Your task to perform on an android device: Is it going to rain today? Image 0: 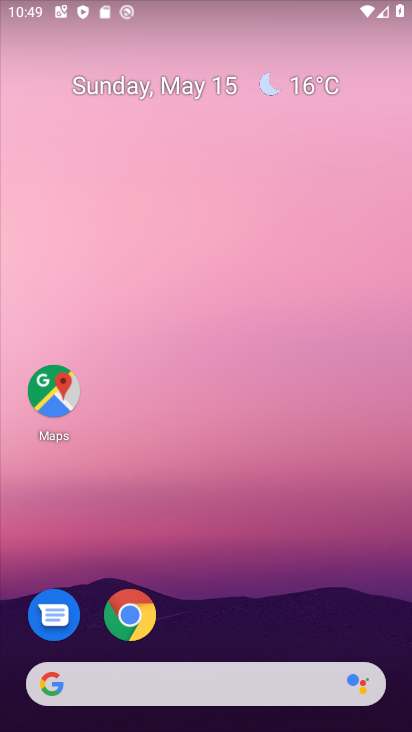
Step 0: drag from (149, 649) to (222, 13)
Your task to perform on an android device: Is it going to rain today? Image 1: 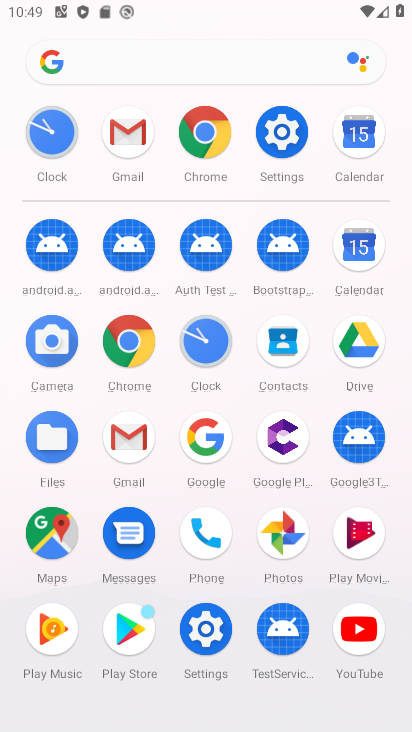
Step 1: drag from (31, 413) to (410, 388)
Your task to perform on an android device: Is it going to rain today? Image 2: 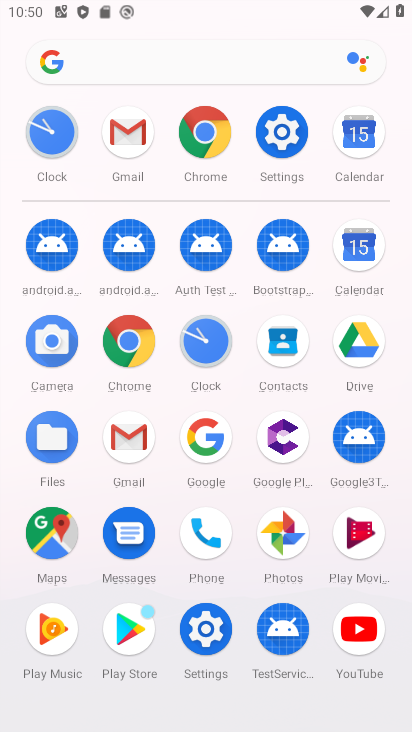
Step 2: click (128, 352)
Your task to perform on an android device: Is it going to rain today? Image 3: 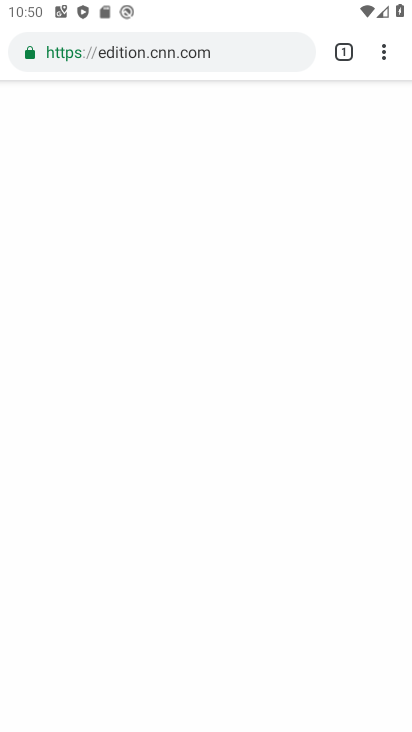
Step 3: click (193, 48)
Your task to perform on an android device: Is it going to rain today? Image 4: 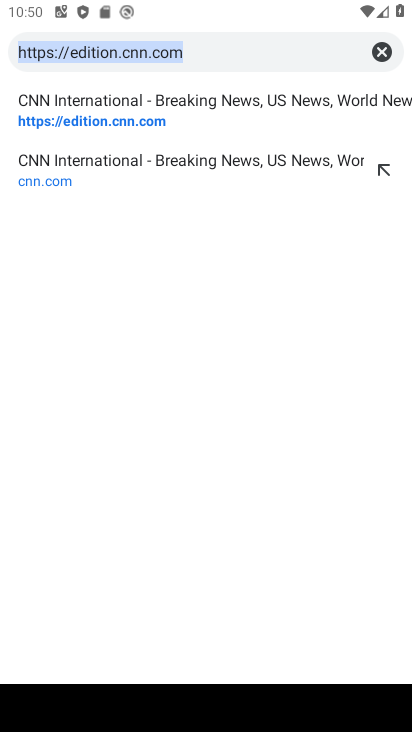
Step 4: type "rain today"
Your task to perform on an android device: Is it going to rain today? Image 5: 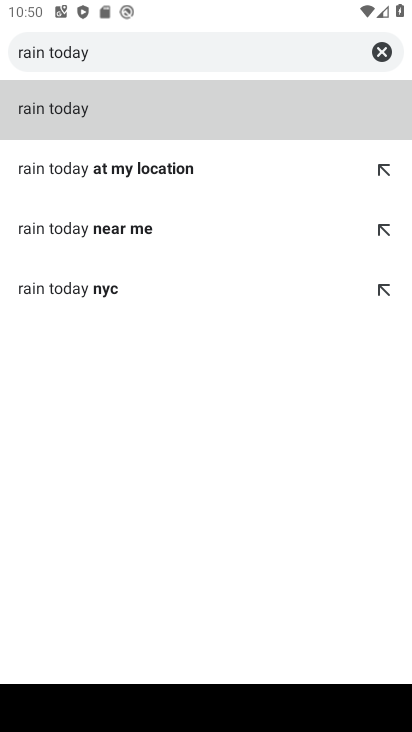
Step 5: click (233, 95)
Your task to perform on an android device: Is it going to rain today? Image 6: 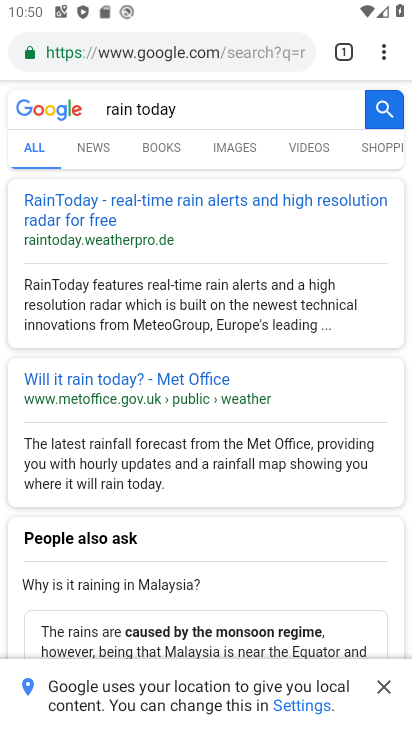
Step 6: task complete